Your task to perform on an android device: open app "Nova Launcher" Image 0: 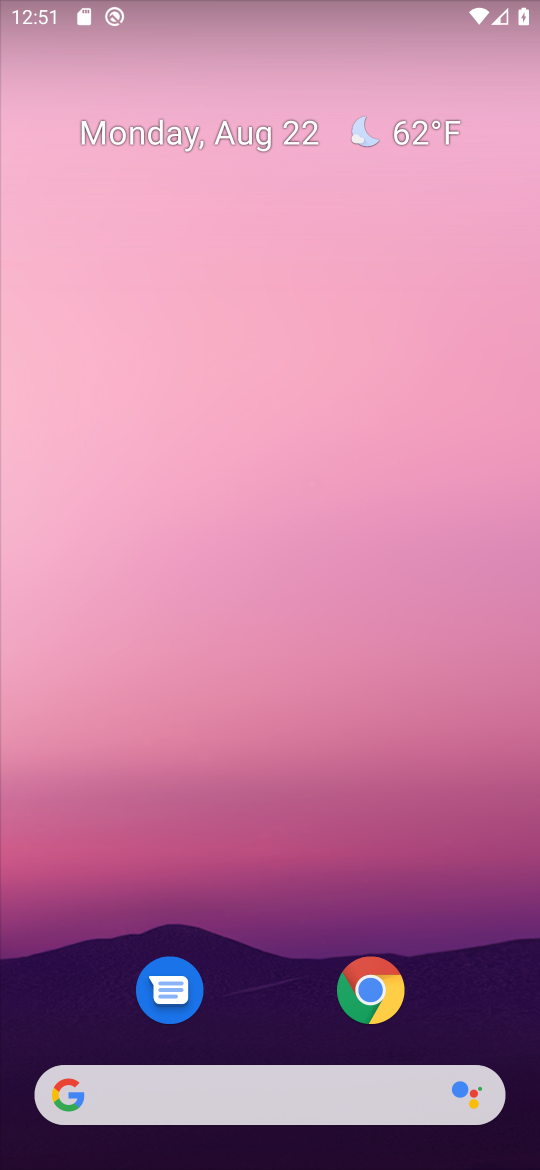
Step 0: drag from (247, 932) to (118, 239)
Your task to perform on an android device: open app "Nova Launcher" Image 1: 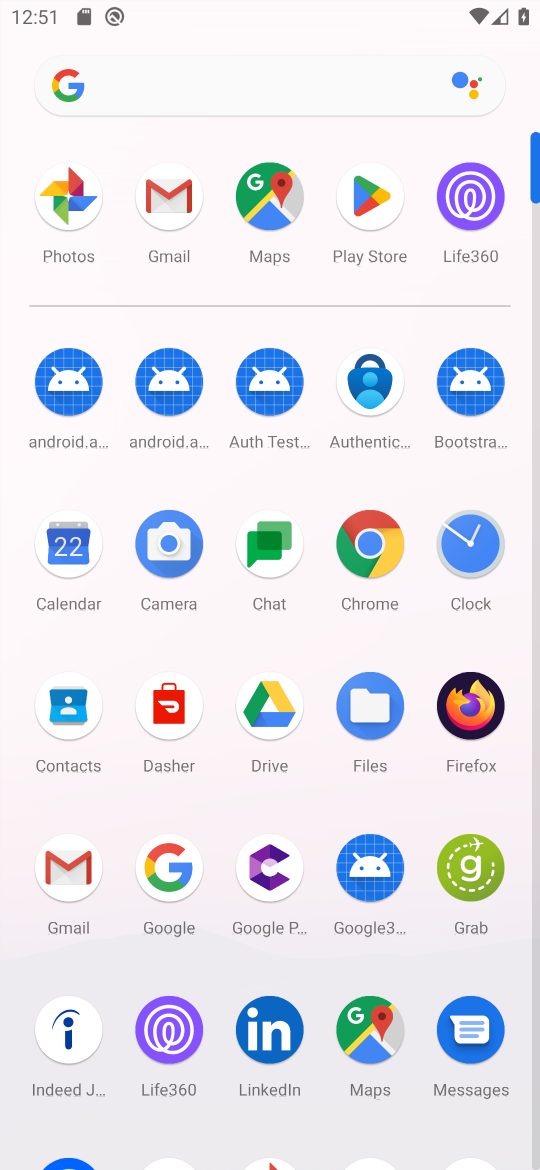
Step 1: click (352, 197)
Your task to perform on an android device: open app "Nova Launcher" Image 2: 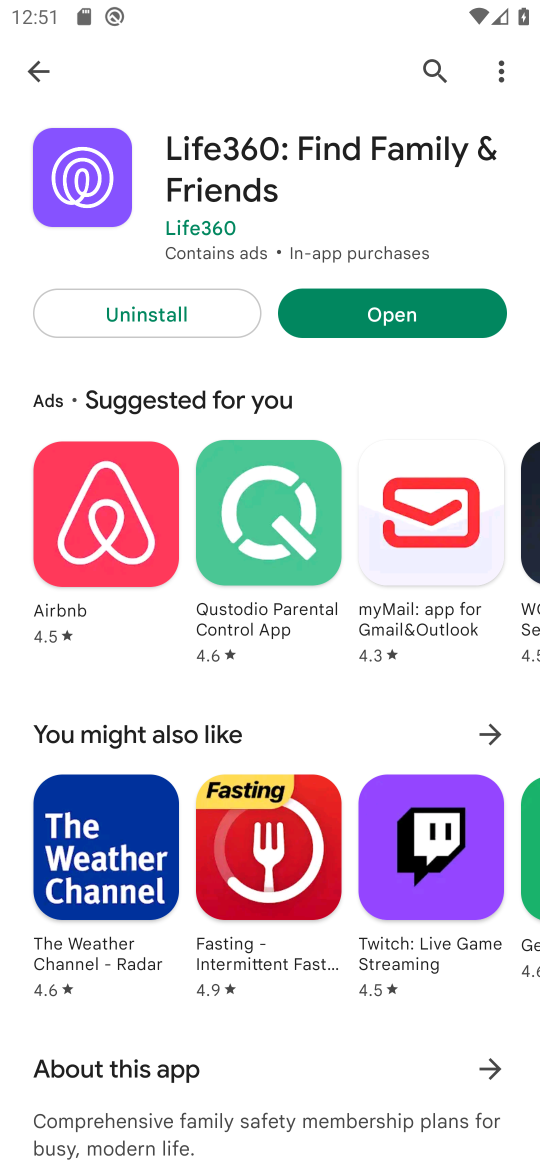
Step 2: click (440, 67)
Your task to perform on an android device: open app "Nova Launcher" Image 3: 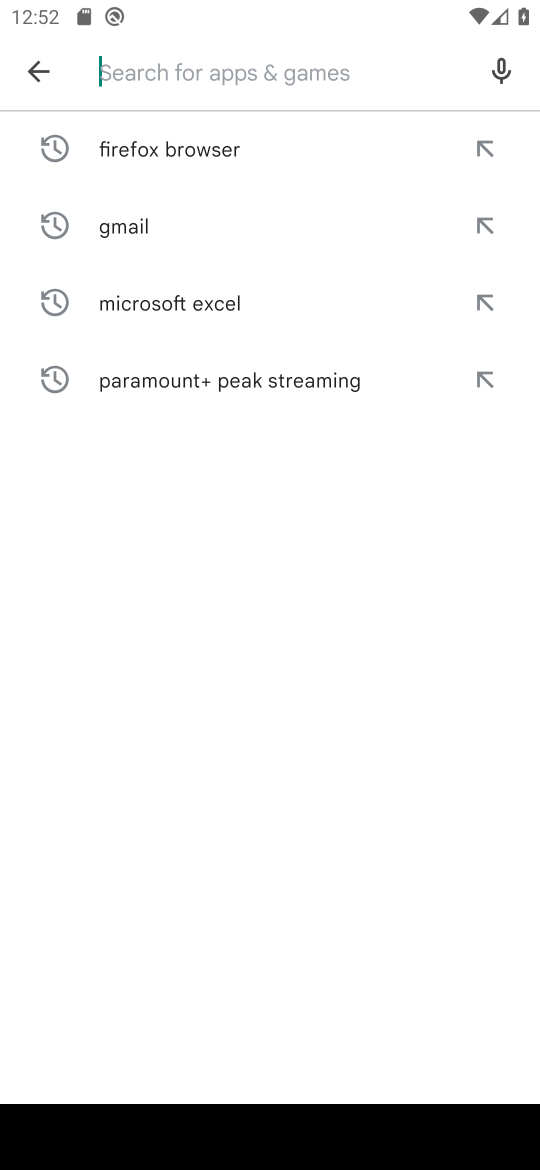
Step 3: type "Nova Launcher"
Your task to perform on an android device: open app "Nova Launcher" Image 4: 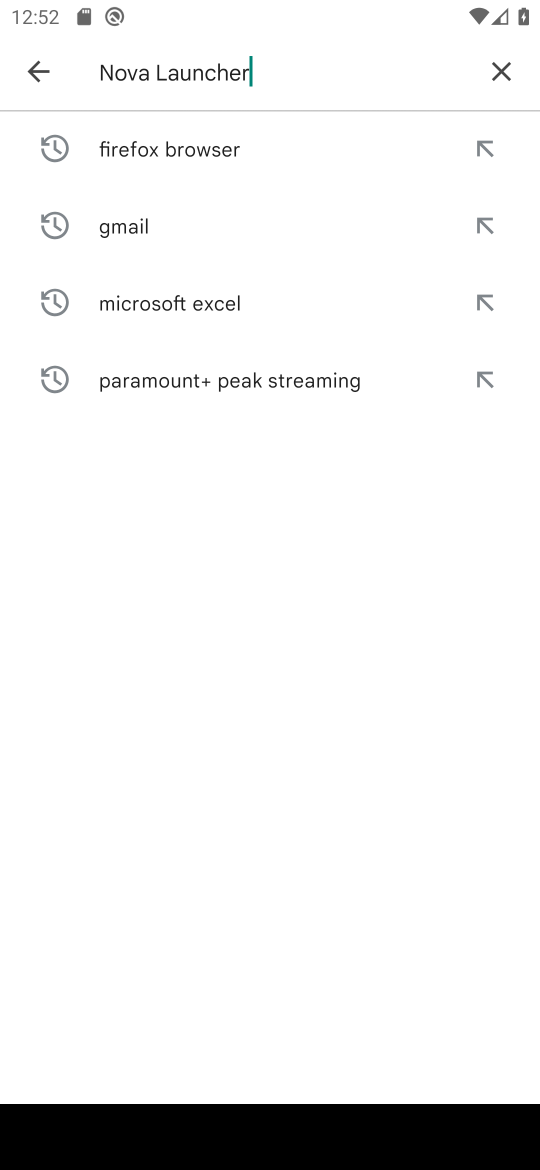
Step 4: type ""
Your task to perform on an android device: open app "Nova Launcher" Image 5: 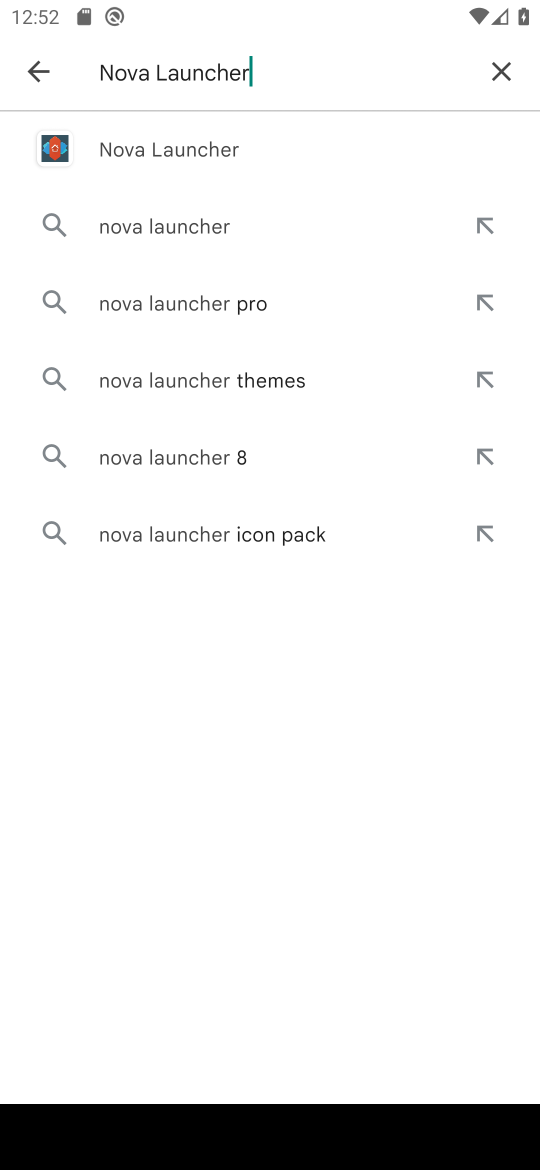
Step 5: click (205, 167)
Your task to perform on an android device: open app "Nova Launcher" Image 6: 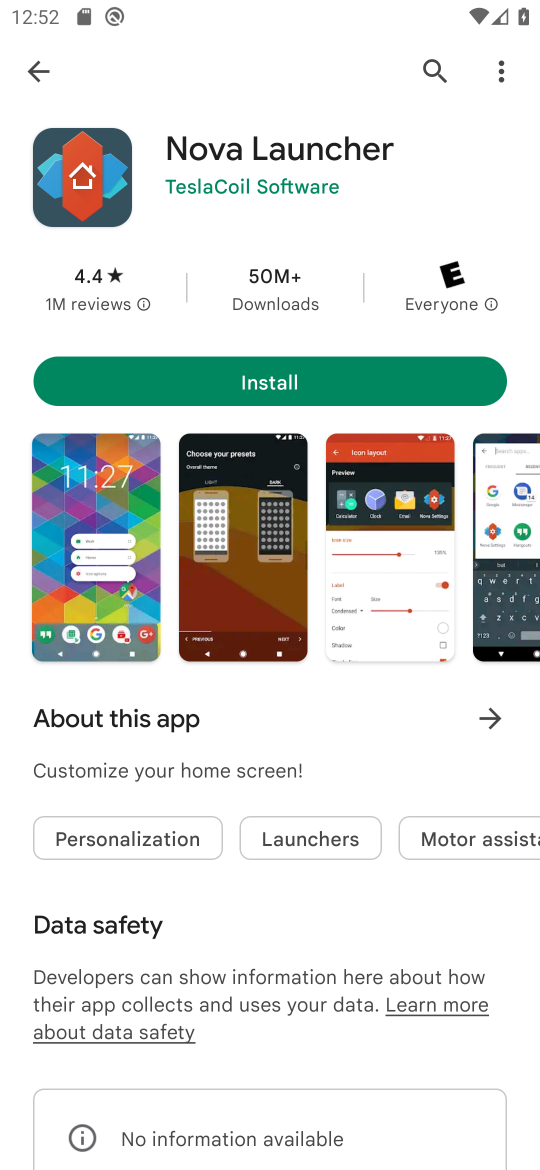
Step 6: task complete